Your task to perform on an android device: What's the weather going to be tomorrow? Image 0: 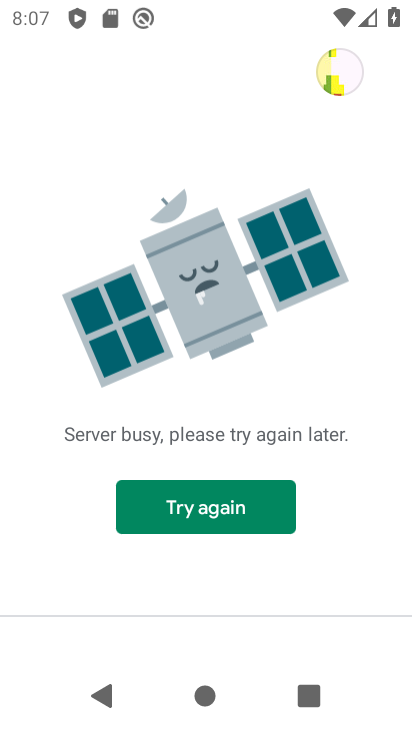
Step 0: press back button
Your task to perform on an android device: What's the weather going to be tomorrow? Image 1: 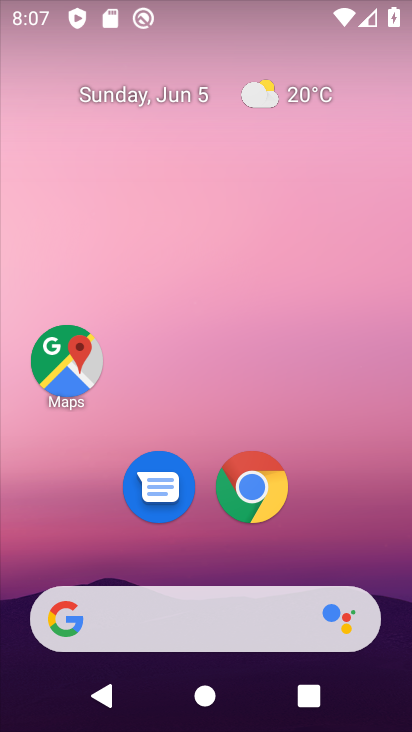
Step 1: click (263, 97)
Your task to perform on an android device: What's the weather going to be tomorrow? Image 2: 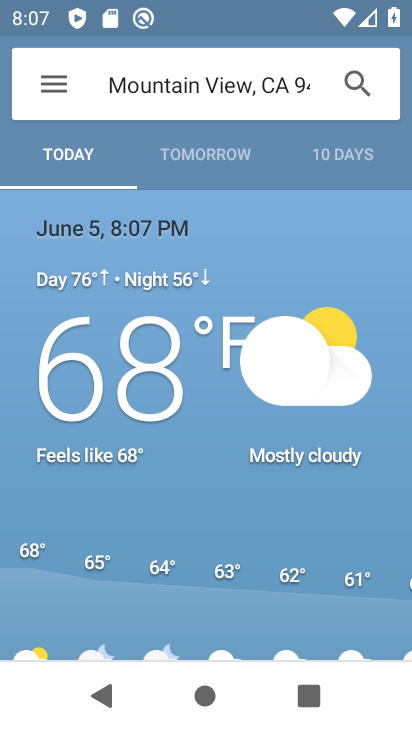
Step 2: click (223, 144)
Your task to perform on an android device: What's the weather going to be tomorrow? Image 3: 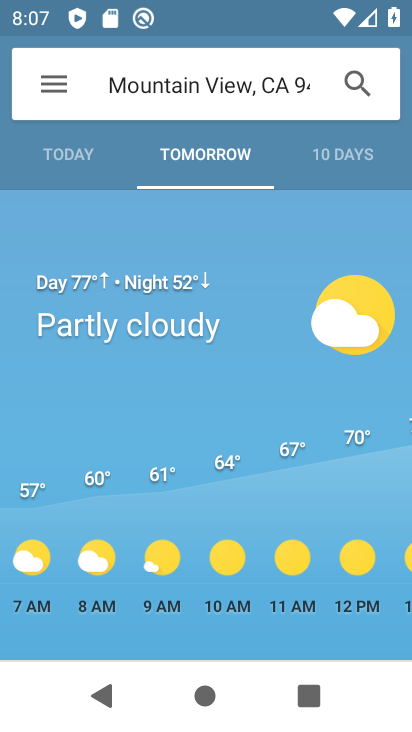
Step 3: task complete